Your task to perform on an android device: check the backup settings in the google photos Image 0: 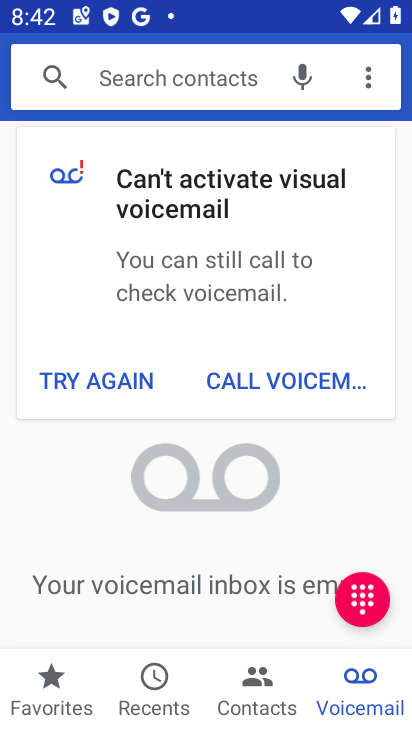
Step 0: press home button
Your task to perform on an android device: check the backup settings in the google photos Image 1: 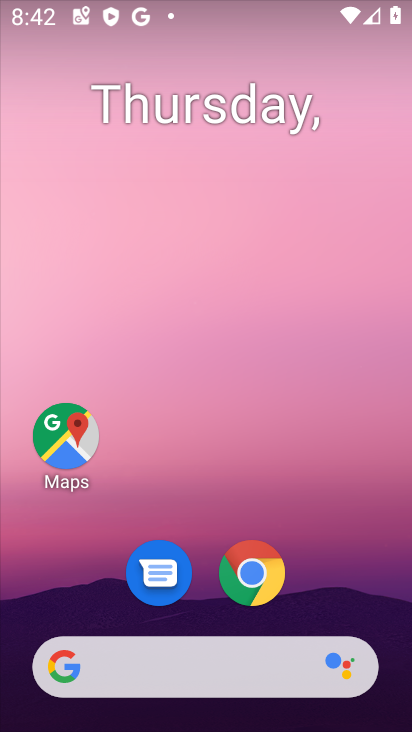
Step 1: drag from (380, 609) to (366, 227)
Your task to perform on an android device: check the backup settings in the google photos Image 2: 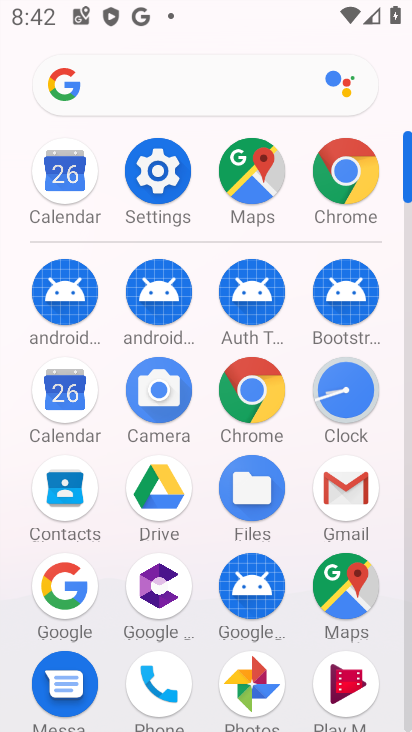
Step 2: drag from (304, 636) to (301, 356)
Your task to perform on an android device: check the backup settings in the google photos Image 3: 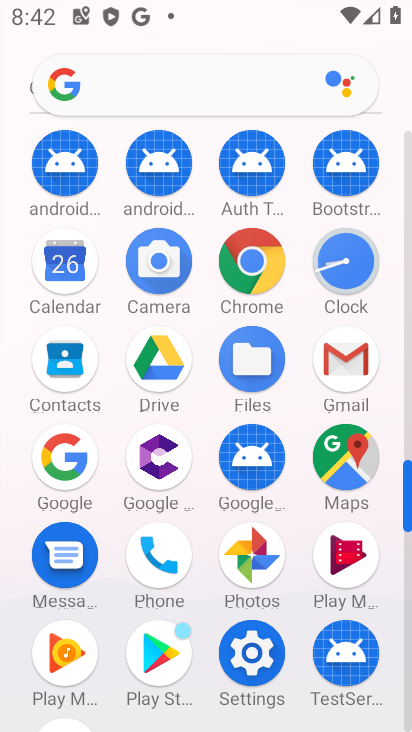
Step 3: click (248, 566)
Your task to perform on an android device: check the backup settings in the google photos Image 4: 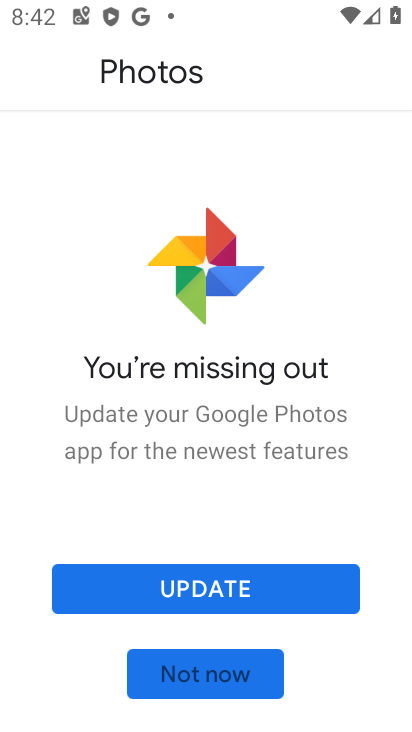
Step 4: click (243, 579)
Your task to perform on an android device: check the backup settings in the google photos Image 5: 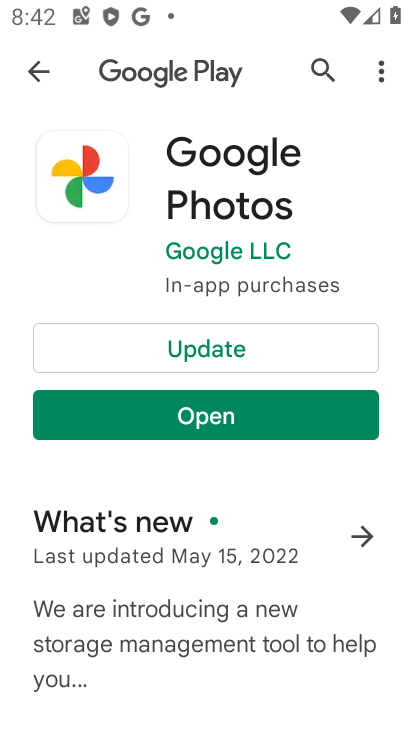
Step 5: click (249, 352)
Your task to perform on an android device: check the backup settings in the google photos Image 6: 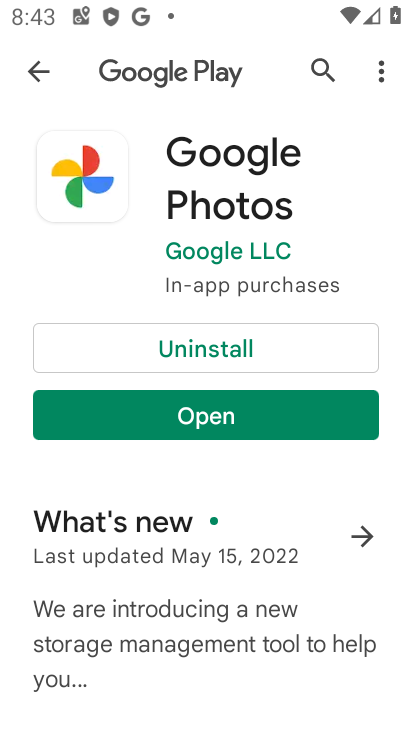
Step 6: click (309, 417)
Your task to perform on an android device: check the backup settings in the google photos Image 7: 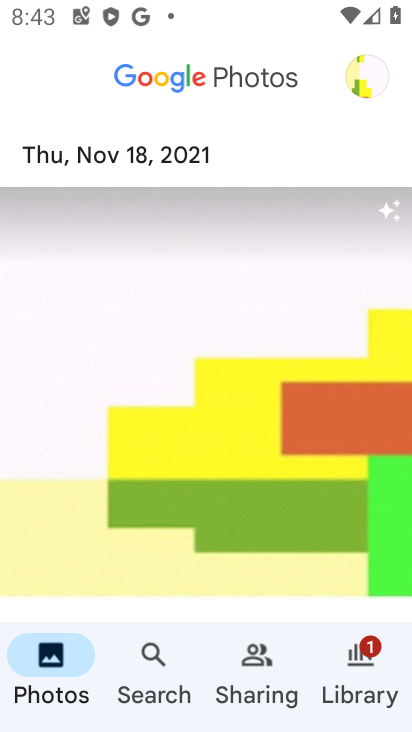
Step 7: click (375, 71)
Your task to perform on an android device: check the backup settings in the google photos Image 8: 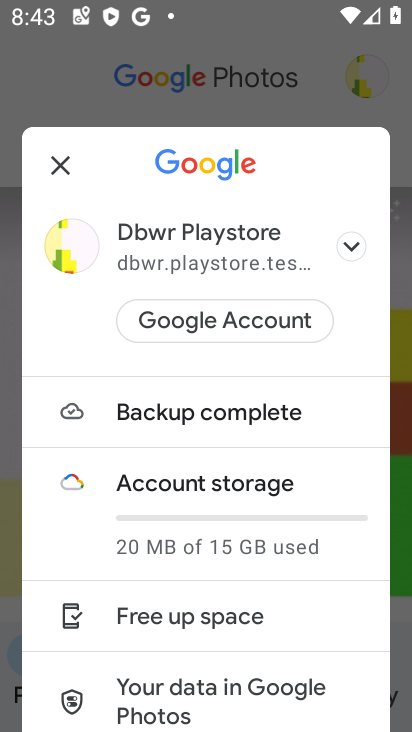
Step 8: drag from (199, 551) to (245, 359)
Your task to perform on an android device: check the backup settings in the google photos Image 9: 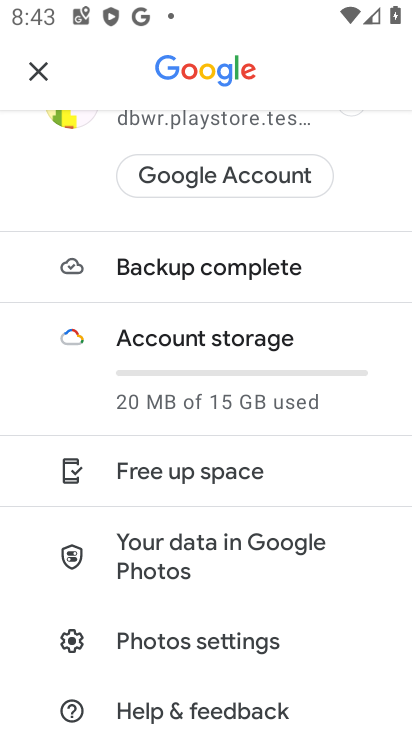
Step 9: drag from (266, 576) to (294, 254)
Your task to perform on an android device: check the backup settings in the google photos Image 10: 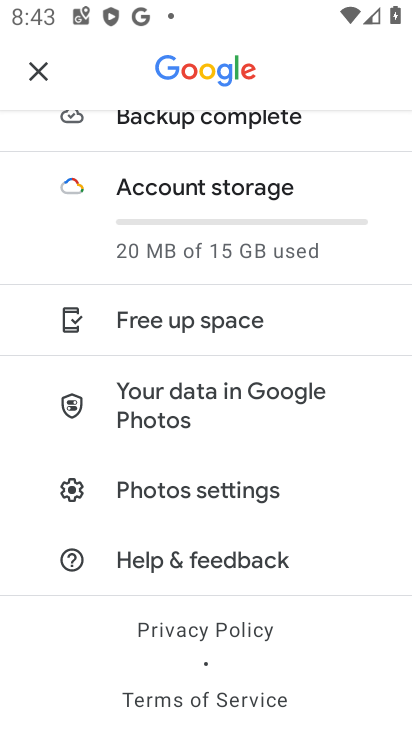
Step 10: click (192, 498)
Your task to perform on an android device: check the backup settings in the google photos Image 11: 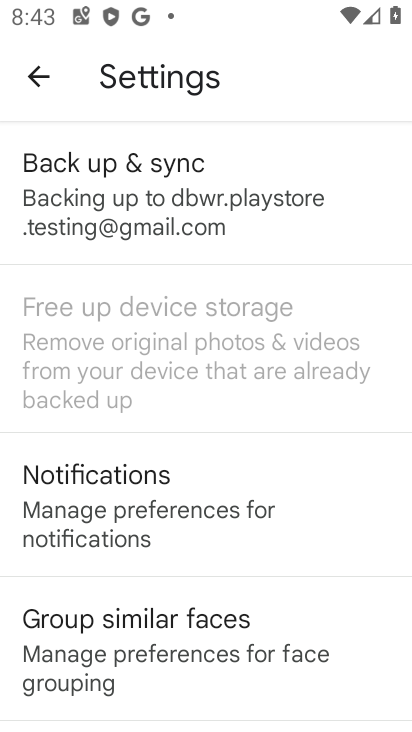
Step 11: click (277, 191)
Your task to perform on an android device: check the backup settings in the google photos Image 12: 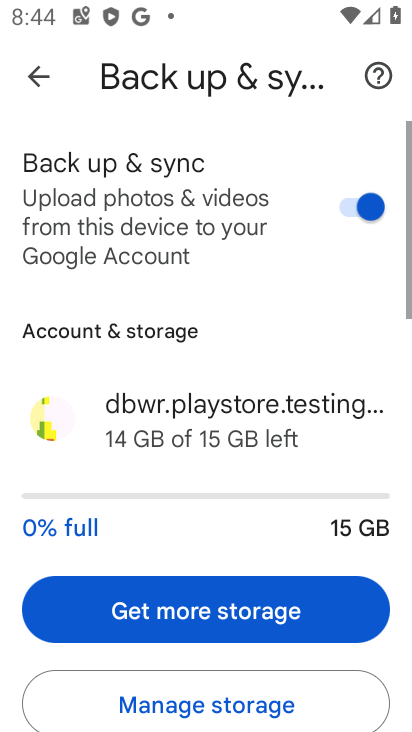
Step 12: task complete